Your task to perform on an android device: Open Youtube and go to "Your channel" Image 0: 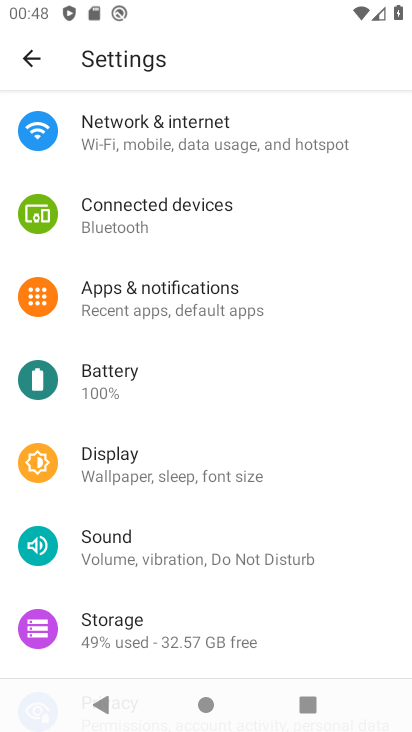
Step 0: press home button
Your task to perform on an android device: Open Youtube and go to "Your channel" Image 1: 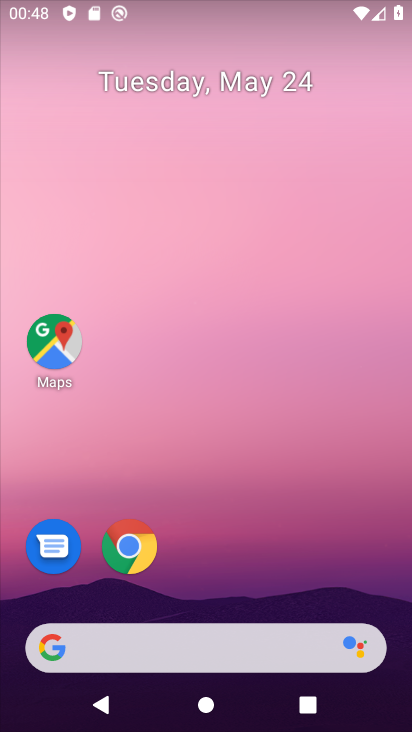
Step 1: drag from (265, 648) to (272, 10)
Your task to perform on an android device: Open Youtube and go to "Your channel" Image 2: 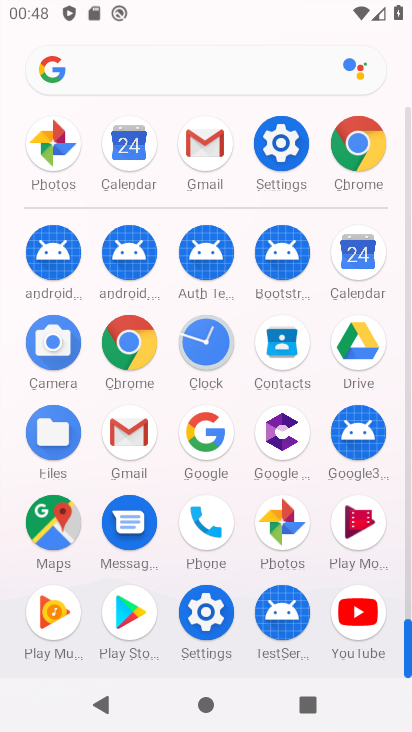
Step 2: click (358, 613)
Your task to perform on an android device: Open Youtube and go to "Your channel" Image 3: 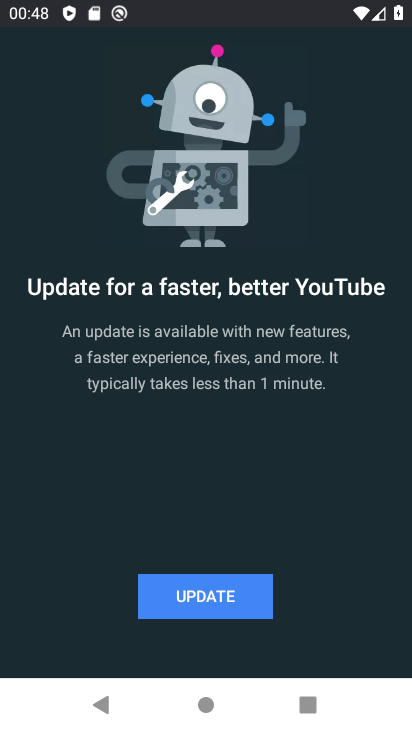
Step 3: click (243, 599)
Your task to perform on an android device: Open Youtube and go to "Your channel" Image 4: 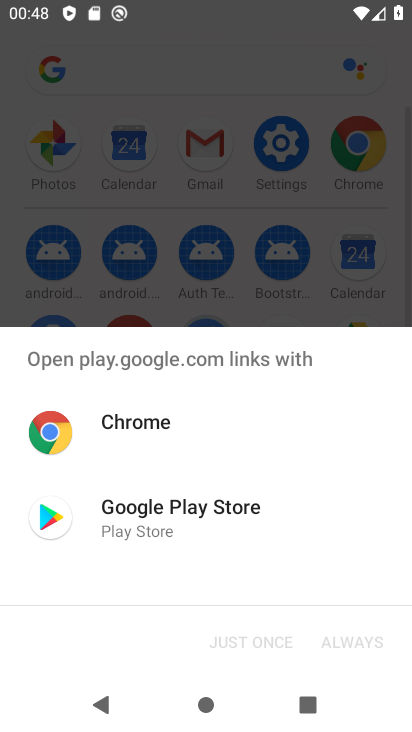
Step 4: drag from (167, 534) to (286, 534)
Your task to perform on an android device: Open Youtube and go to "Your channel" Image 5: 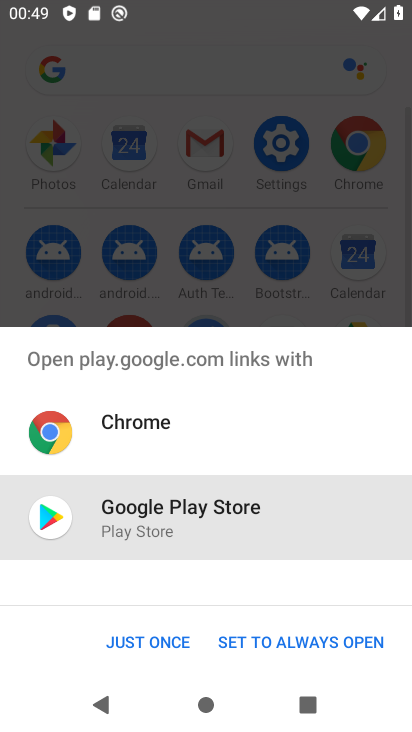
Step 5: click (174, 635)
Your task to perform on an android device: Open Youtube and go to "Your channel" Image 6: 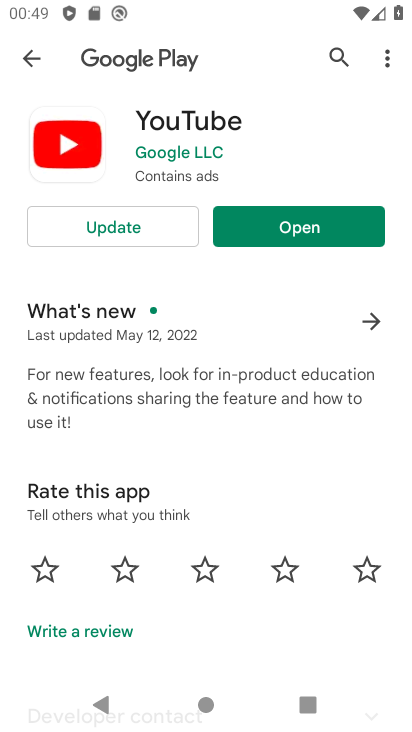
Step 6: click (124, 214)
Your task to perform on an android device: Open Youtube and go to "Your channel" Image 7: 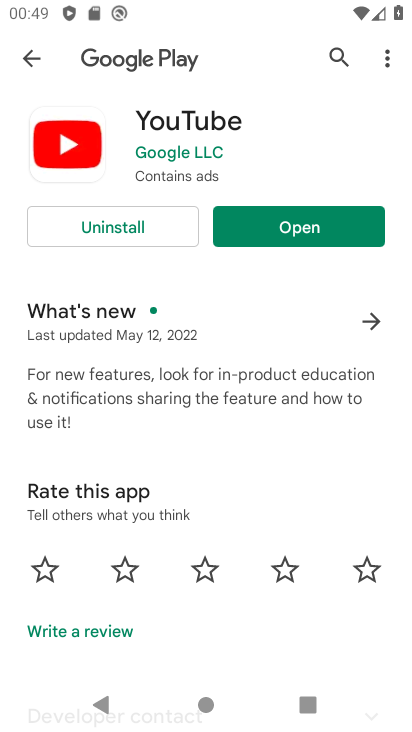
Step 7: click (264, 224)
Your task to perform on an android device: Open Youtube and go to "Your channel" Image 8: 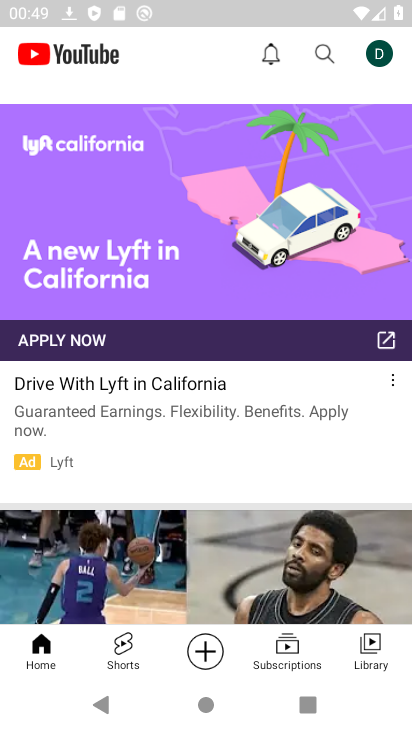
Step 8: click (375, 48)
Your task to perform on an android device: Open Youtube and go to "Your channel" Image 9: 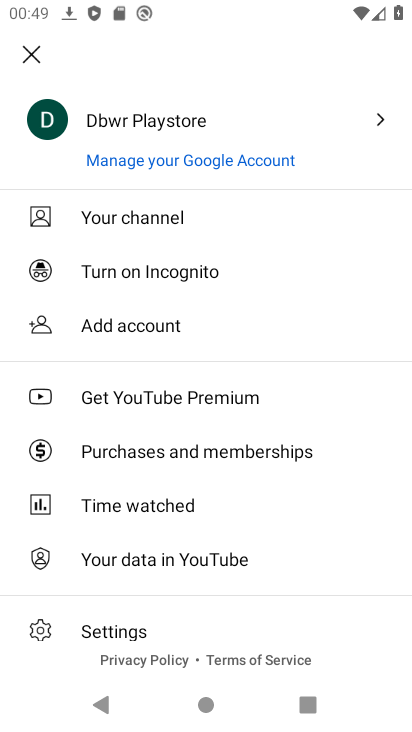
Step 9: click (175, 225)
Your task to perform on an android device: Open Youtube and go to "Your channel" Image 10: 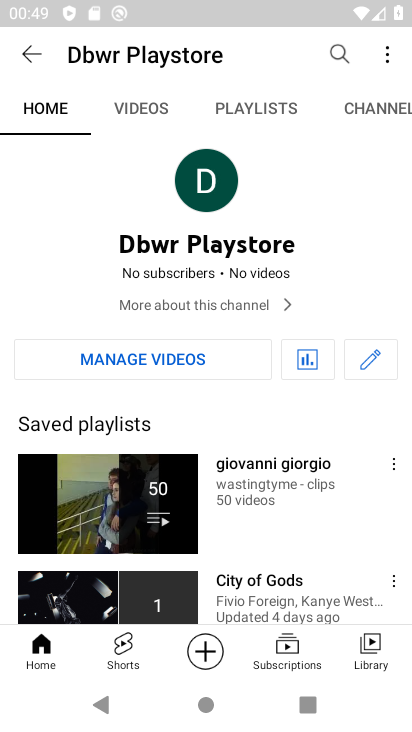
Step 10: task complete